Your task to perform on an android device: Open location settings Image 0: 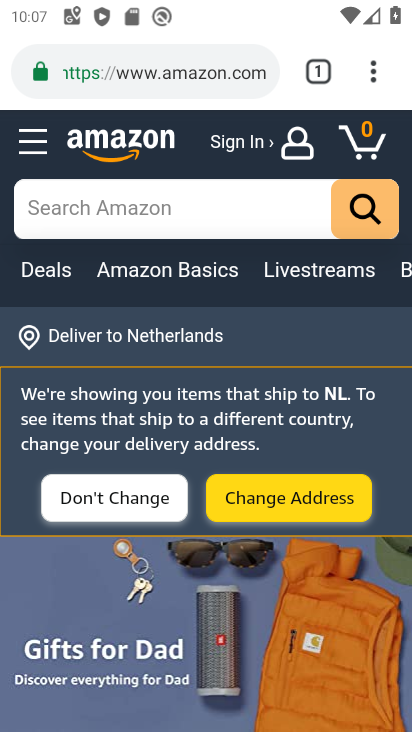
Step 0: press home button
Your task to perform on an android device: Open location settings Image 1: 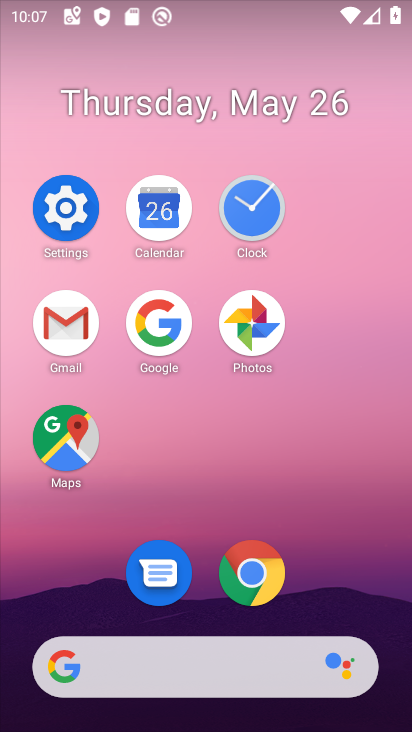
Step 1: click (70, 217)
Your task to perform on an android device: Open location settings Image 2: 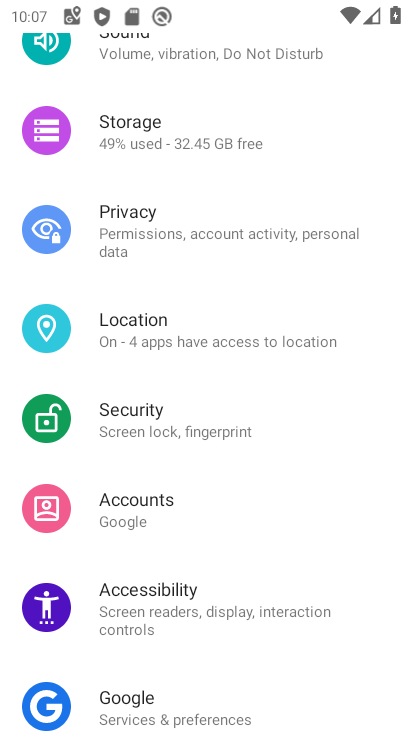
Step 2: drag from (206, 576) to (271, 173)
Your task to perform on an android device: Open location settings Image 3: 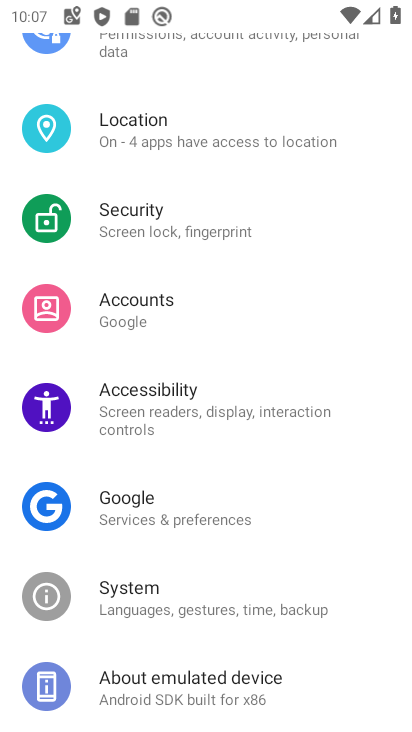
Step 3: click (264, 147)
Your task to perform on an android device: Open location settings Image 4: 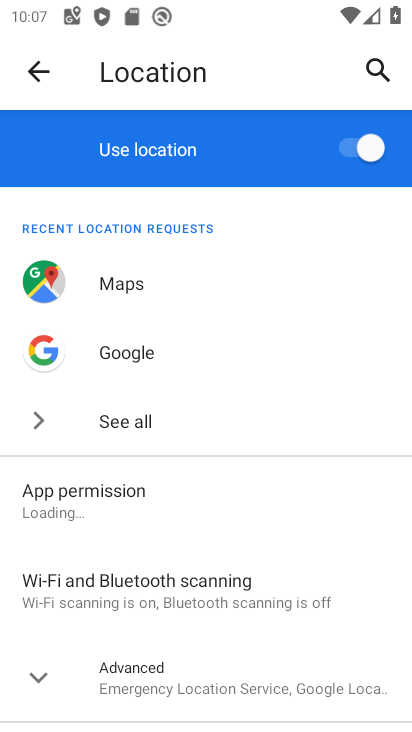
Step 4: task complete